Your task to perform on an android device: Go to wifi settings Image 0: 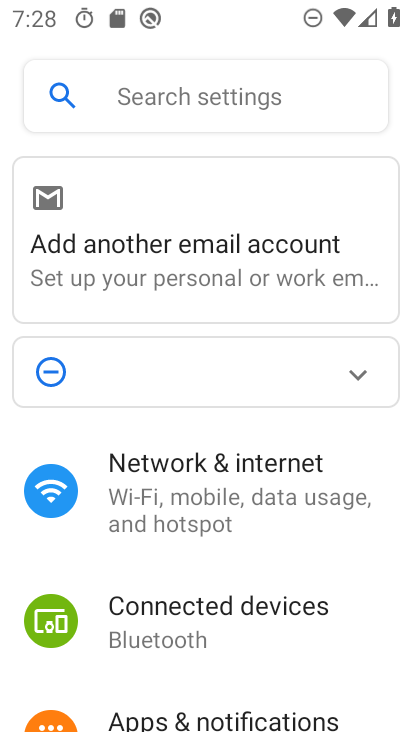
Step 0: press home button
Your task to perform on an android device: Go to wifi settings Image 1: 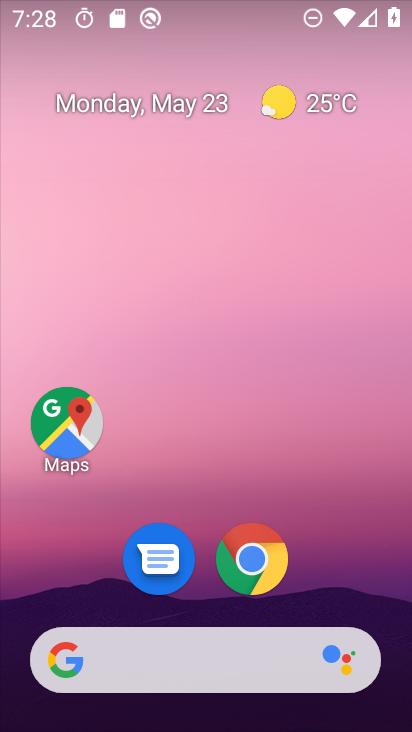
Step 1: drag from (396, 654) to (273, 87)
Your task to perform on an android device: Go to wifi settings Image 2: 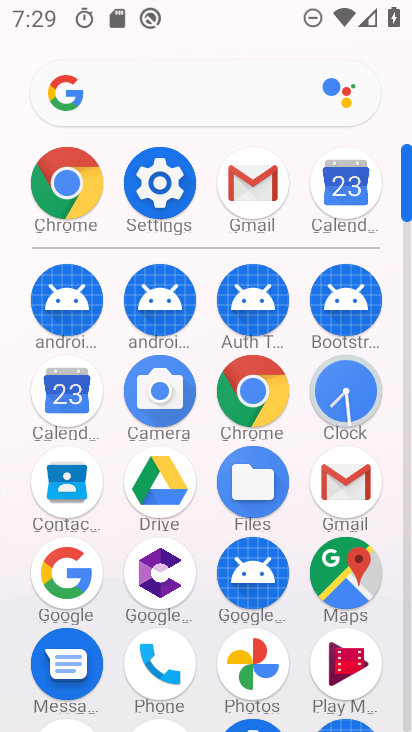
Step 2: click (126, 172)
Your task to perform on an android device: Go to wifi settings Image 3: 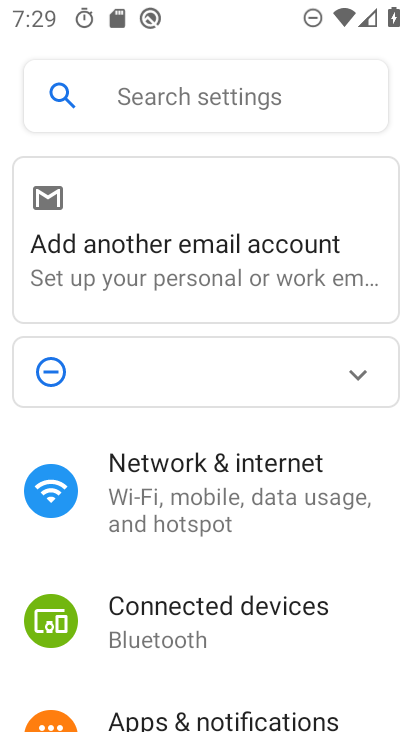
Step 3: click (163, 459)
Your task to perform on an android device: Go to wifi settings Image 4: 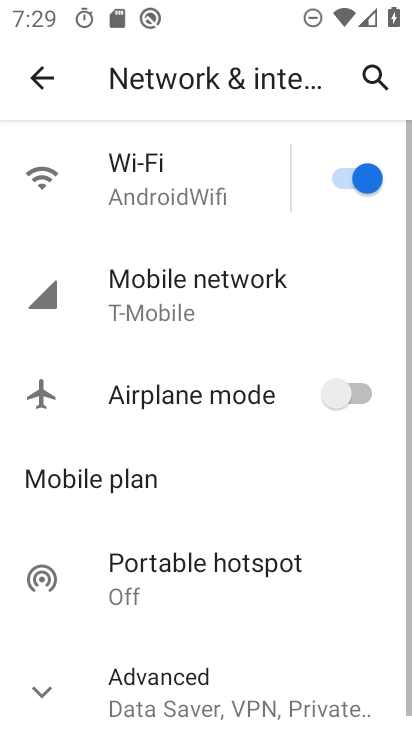
Step 4: click (173, 188)
Your task to perform on an android device: Go to wifi settings Image 5: 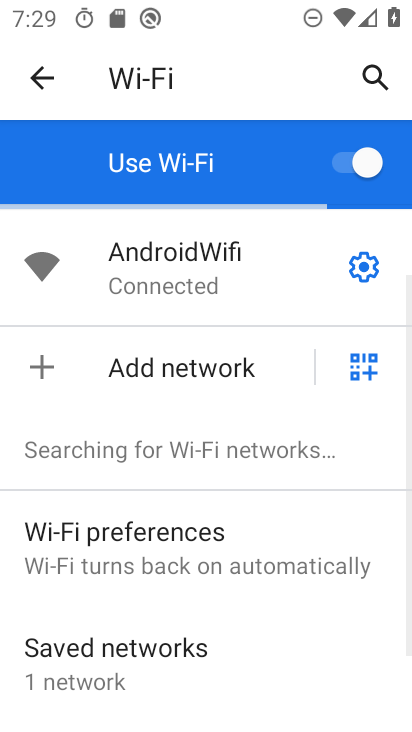
Step 5: task complete